Your task to perform on an android device: star an email in the gmail app Image 0: 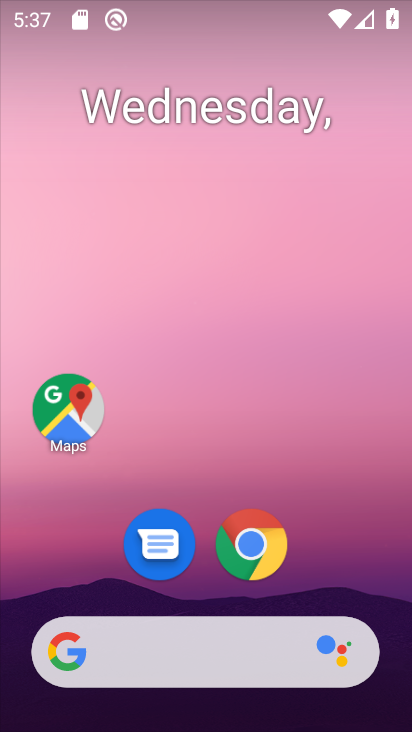
Step 0: drag from (339, 547) to (277, 31)
Your task to perform on an android device: star an email in the gmail app Image 1: 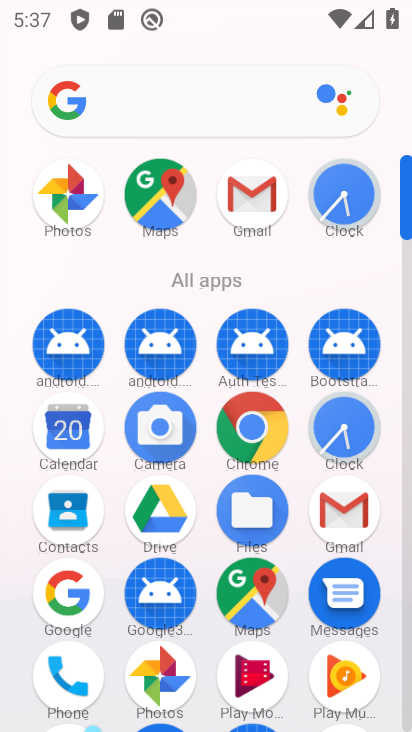
Step 1: click (250, 195)
Your task to perform on an android device: star an email in the gmail app Image 2: 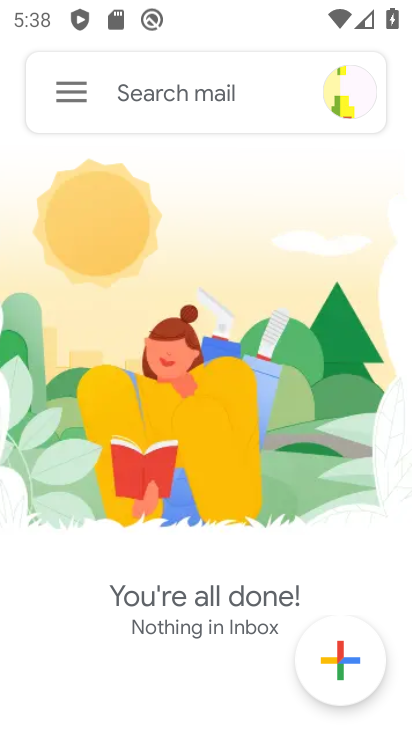
Step 2: click (67, 100)
Your task to perform on an android device: star an email in the gmail app Image 3: 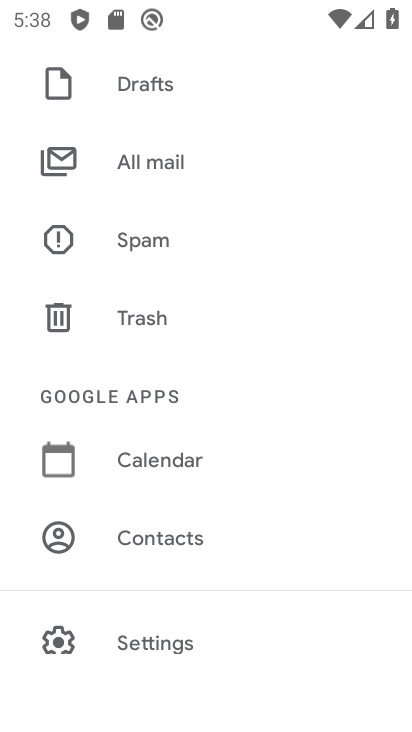
Step 3: click (184, 155)
Your task to perform on an android device: star an email in the gmail app Image 4: 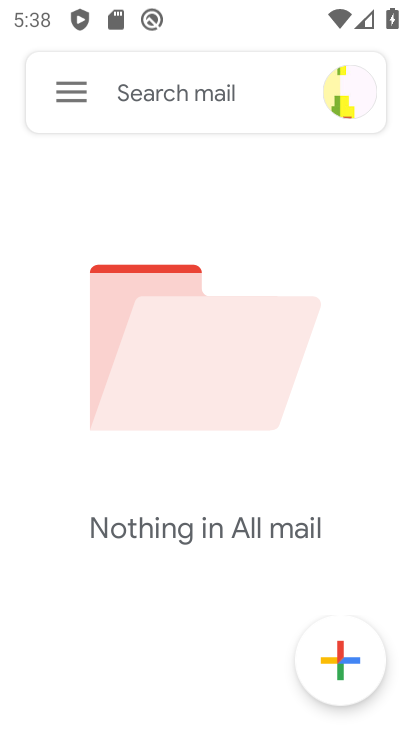
Step 4: task complete